Your task to perform on an android device: turn off javascript in the chrome app Image 0: 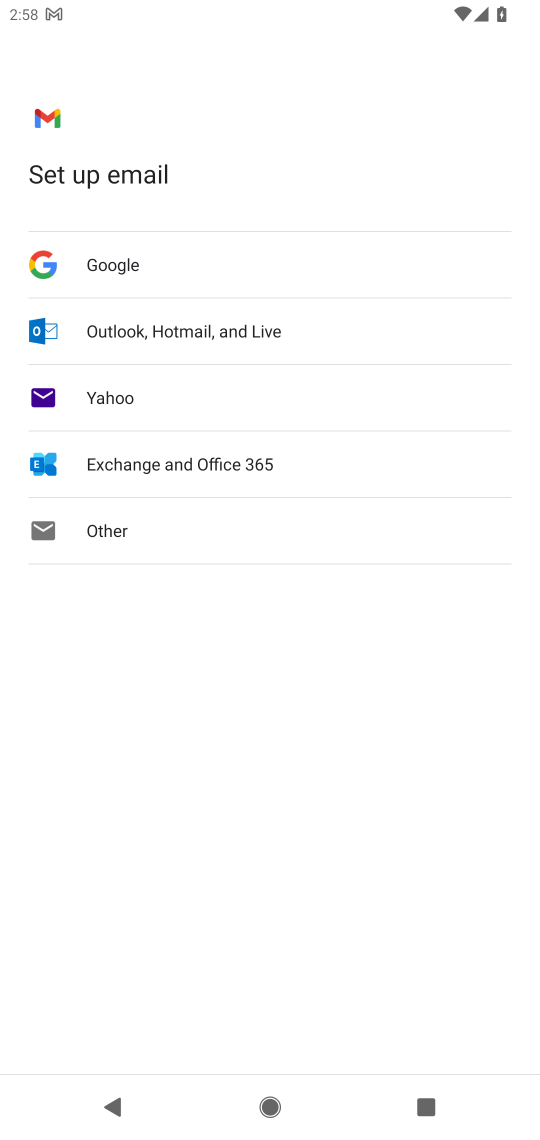
Step 0: press home button
Your task to perform on an android device: turn off javascript in the chrome app Image 1: 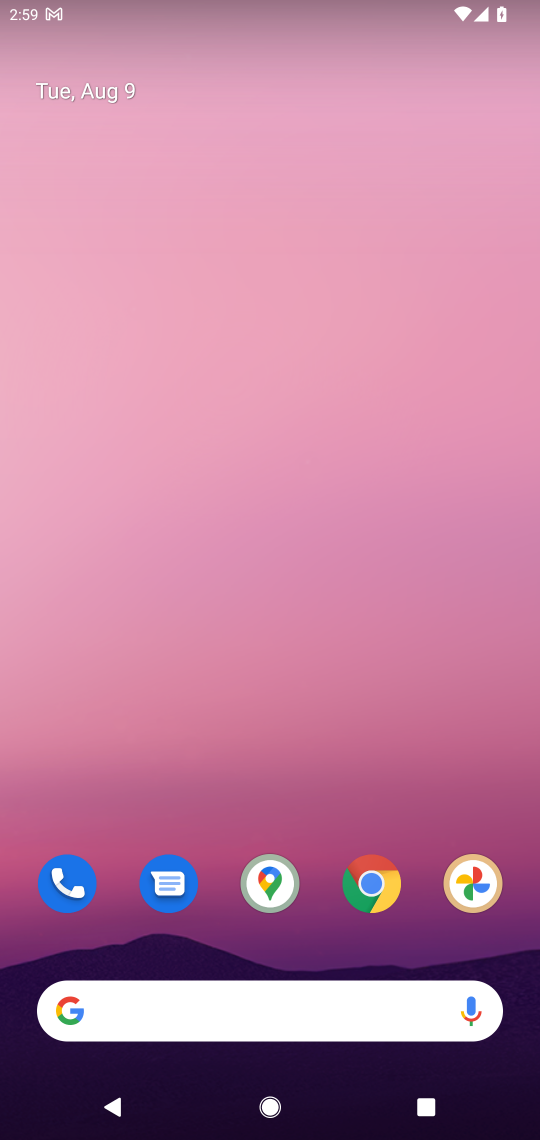
Step 1: click (370, 877)
Your task to perform on an android device: turn off javascript in the chrome app Image 2: 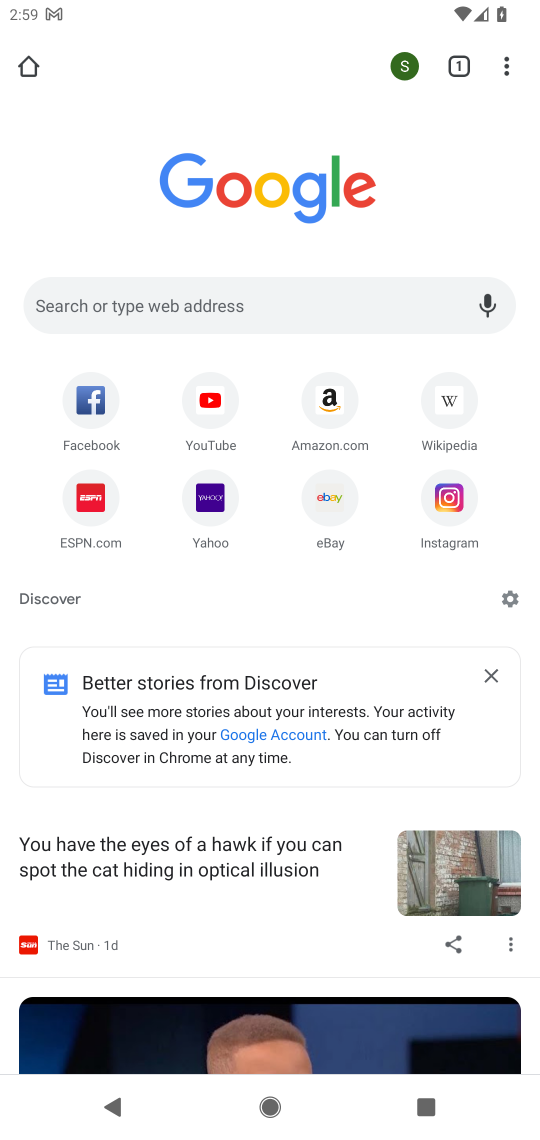
Step 2: click (503, 76)
Your task to perform on an android device: turn off javascript in the chrome app Image 3: 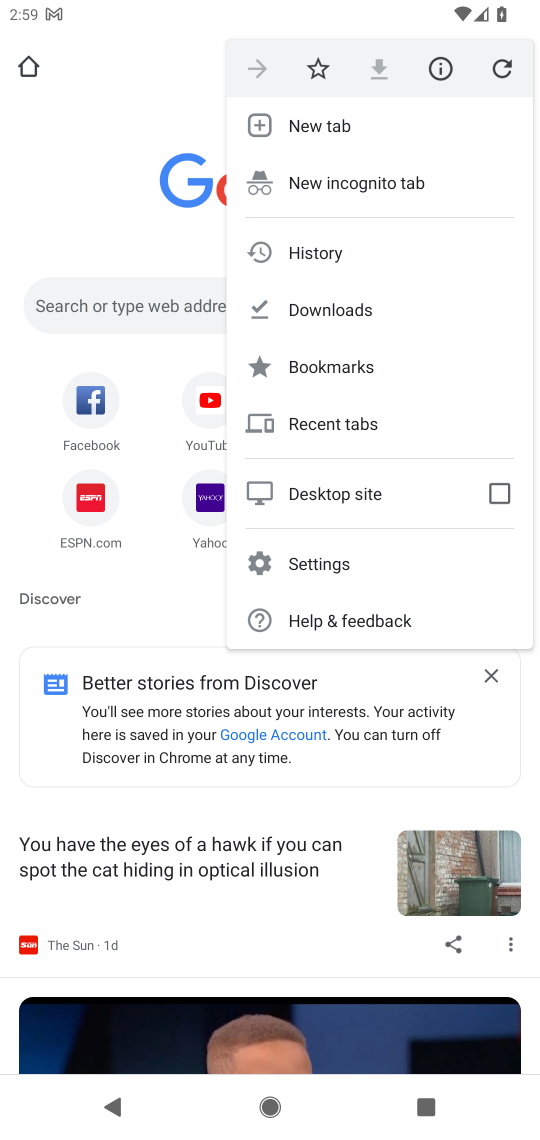
Step 3: click (325, 573)
Your task to perform on an android device: turn off javascript in the chrome app Image 4: 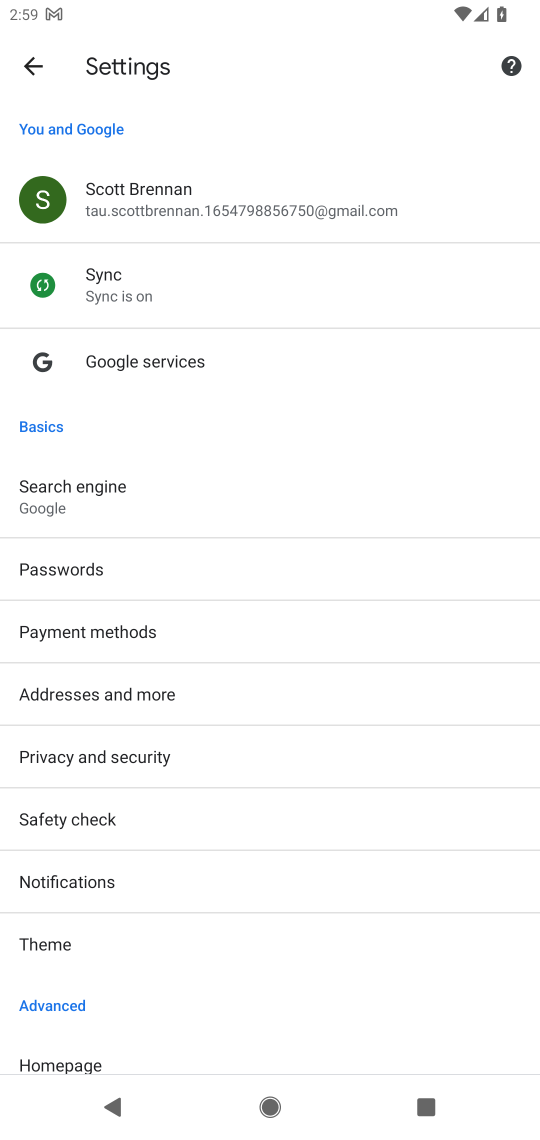
Step 4: drag from (245, 891) to (256, 335)
Your task to perform on an android device: turn off javascript in the chrome app Image 5: 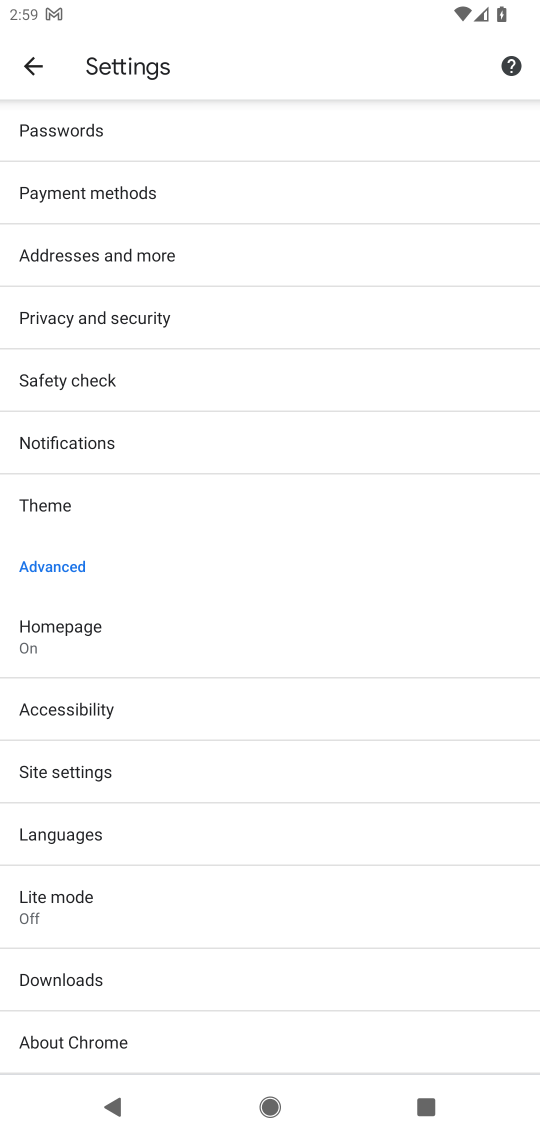
Step 5: click (70, 771)
Your task to perform on an android device: turn off javascript in the chrome app Image 6: 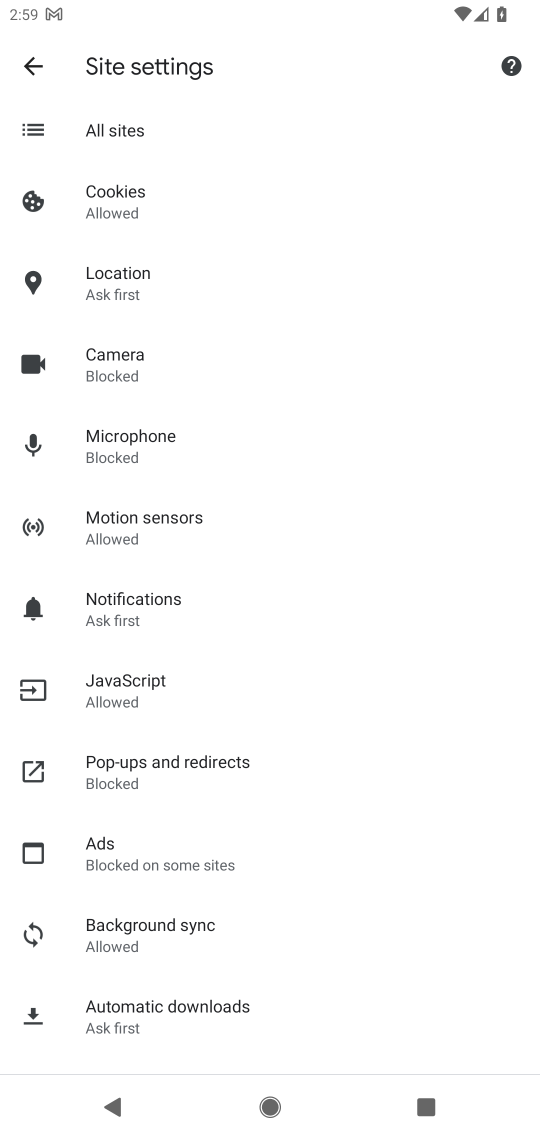
Step 6: click (107, 692)
Your task to perform on an android device: turn off javascript in the chrome app Image 7: 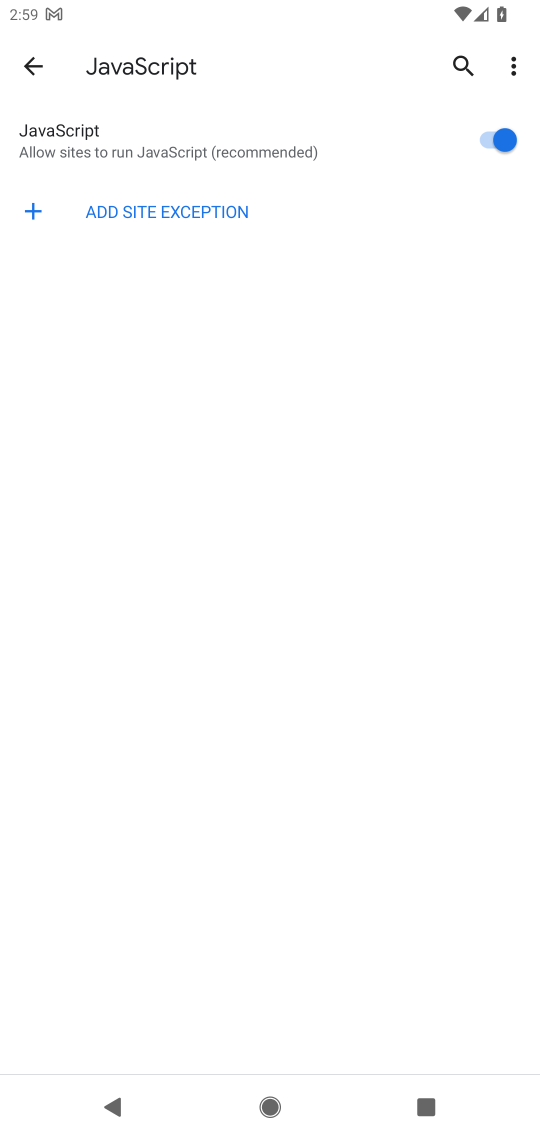
Step 7: click (475, 134)
Your task to perform on an android device: turn off javascript in the chrome app Image 8: 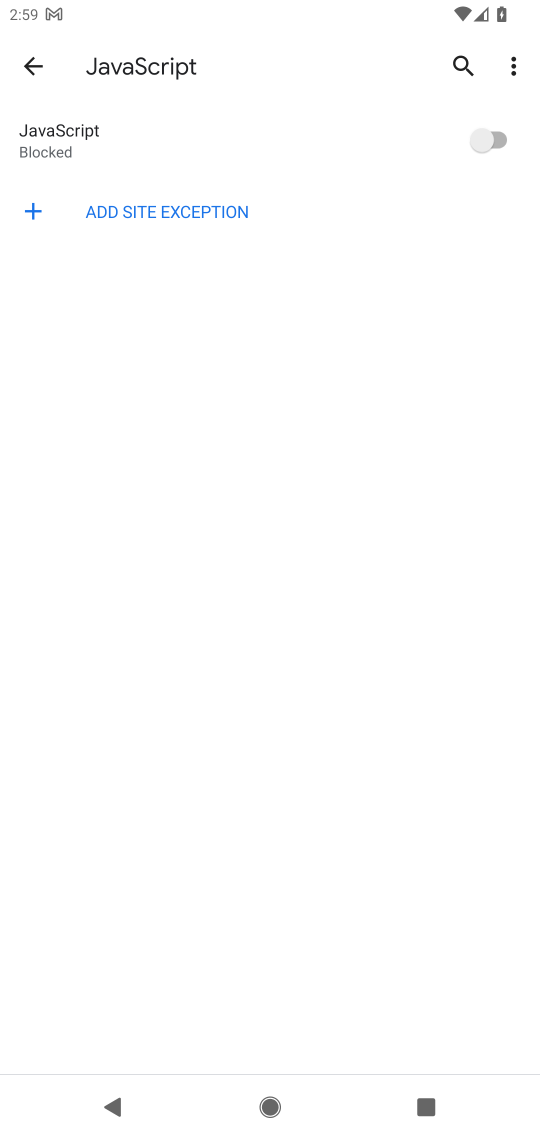
Step 8: task complete